Your task to perform on an android device: allow notifications from all sites in the chrome app Image 0: 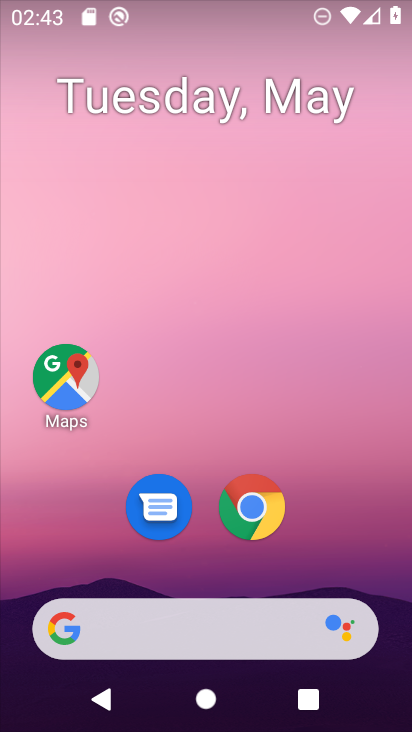
Step 0: click (256, 509)
Your task to perform on an android device: allow notifications from all sites in the chrome app Image 1: 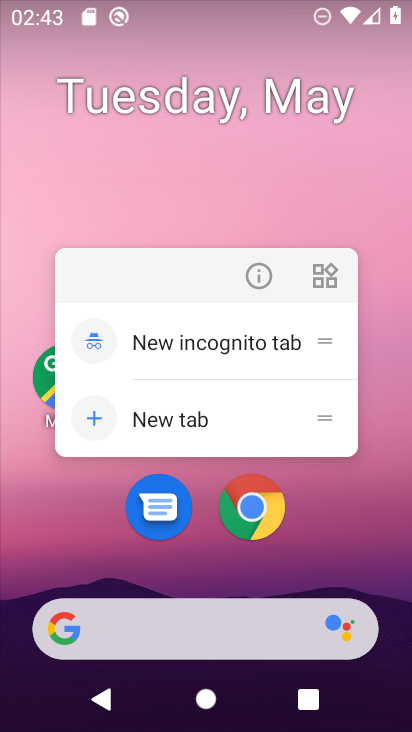
Step 1: click (258, 510)
Your task to perform on an android device: allow notifications from all sites in the chrome app Image 2: 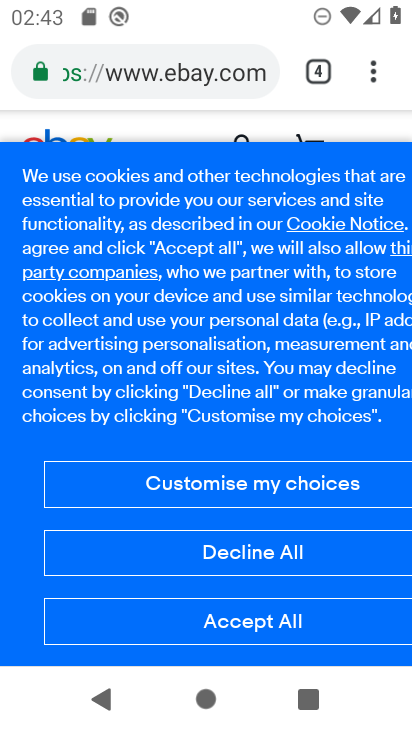
Step 2: drag from (371, 74) to (127, 510)
Your task to perform on an android device: allow notifications from all sites in the chrome app Image 3: 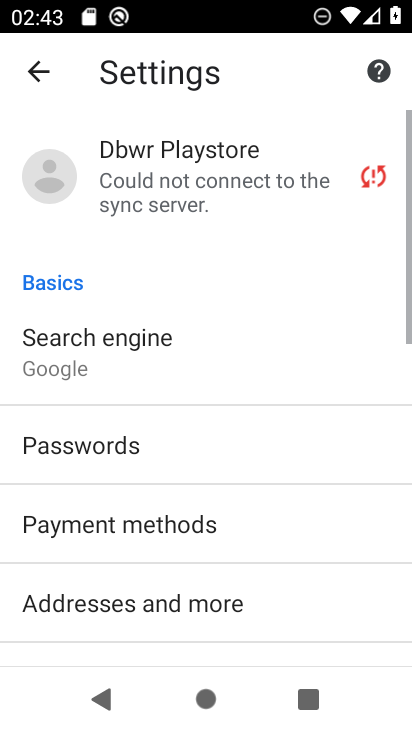
Step 3: drag from (176, 542) to (214, 337)
Your task to perform on an android device: allow notifications from all sites in the chrome app Image 4: 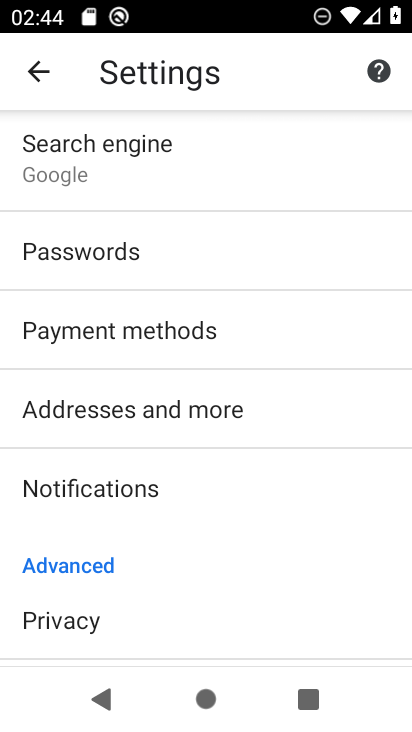
Step 4: drag from (230, 619) to (239, 267)
Your task to perform on an android device: allow notifications from all sites in the chrome app Image 5: 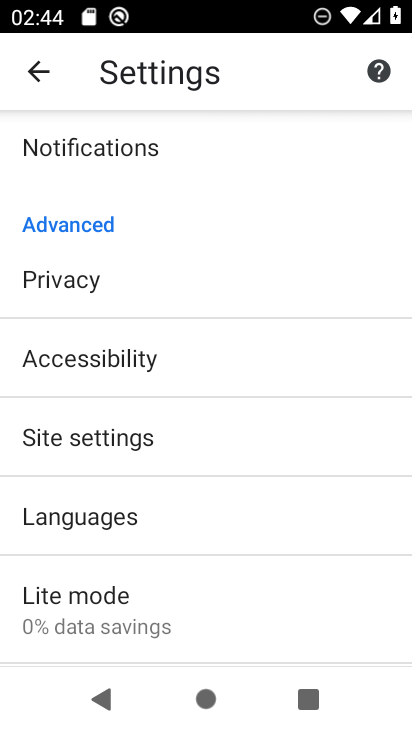
Step 5: click (137, 423)
Your task to perform on an android device: allow notifications from all sites in the chrome app Image 6: 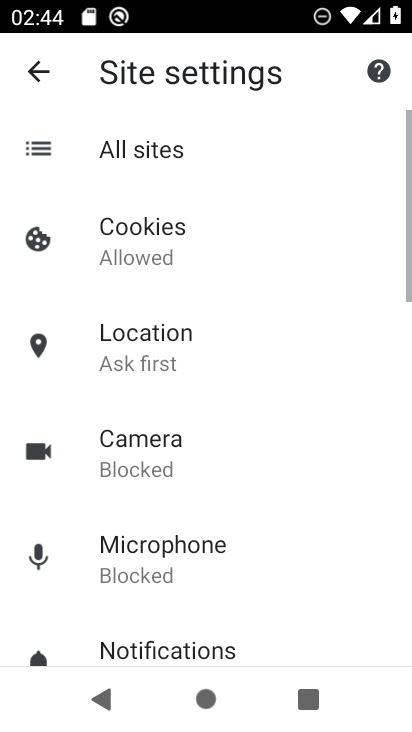
Step 6: click (168, 163)
Your task to perform on an android device: allow notifications from all sites in the chrome app Image 7: 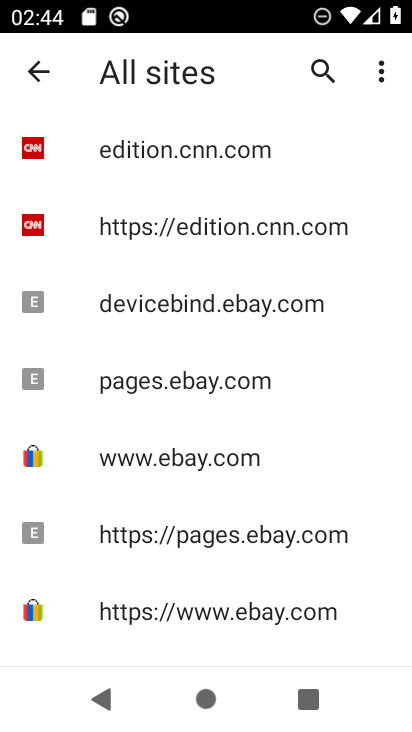
Step 7: drag from (261, 527) to (275, 218)
Your task to perform on an android device: allow notifications from all sites in the chrome app Image 8: 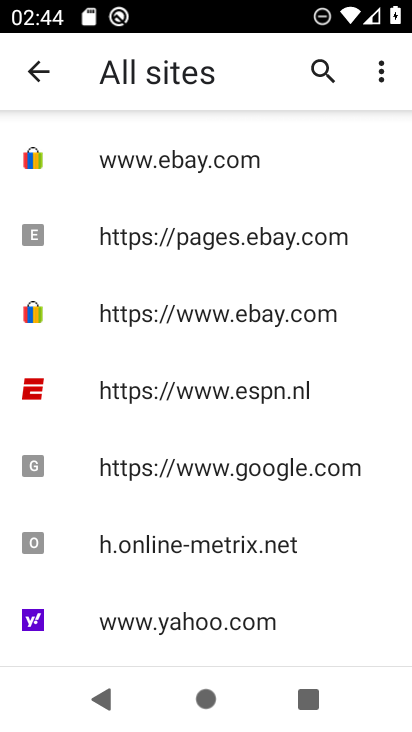
Step 8: click (275, 449)
Your task to perform on an android device: allow notifications from all sites in the chrome app Image 9: 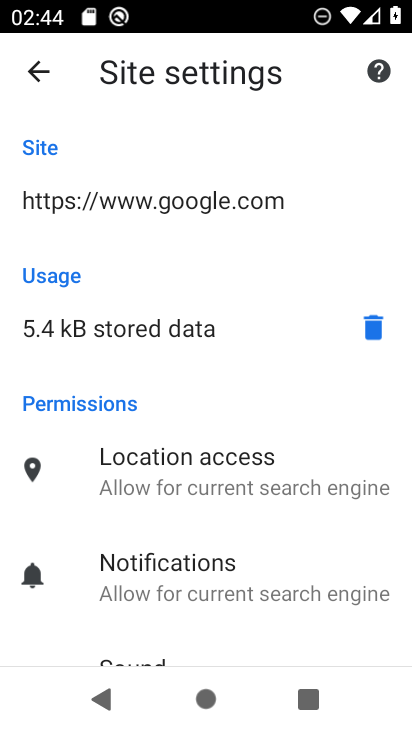
Step 9: click (190, 574)
Your task to perform on an android device: allow notifications from all sites in the chrome app Image 10: 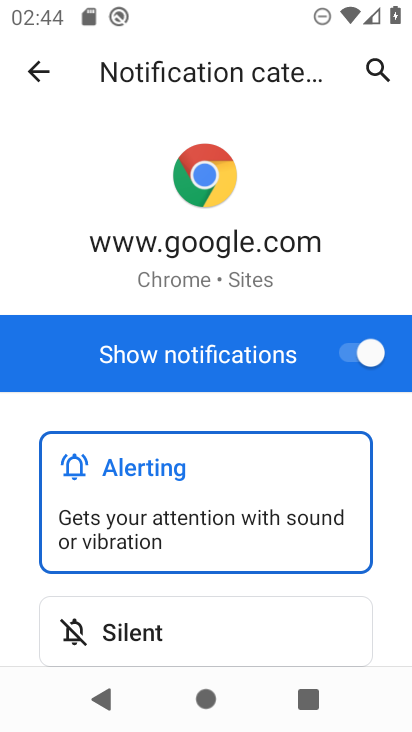
Step 10: task complete